Your task to perform on an android device: Open Google Maps and go to "Timeline" Image 0: 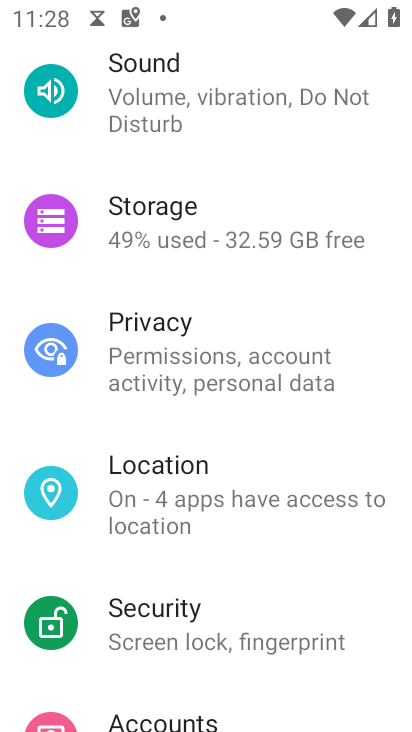
Step 0: press home button
Your task to perform on an android device: Open Google Maps and go to "Timeline" Image 1: 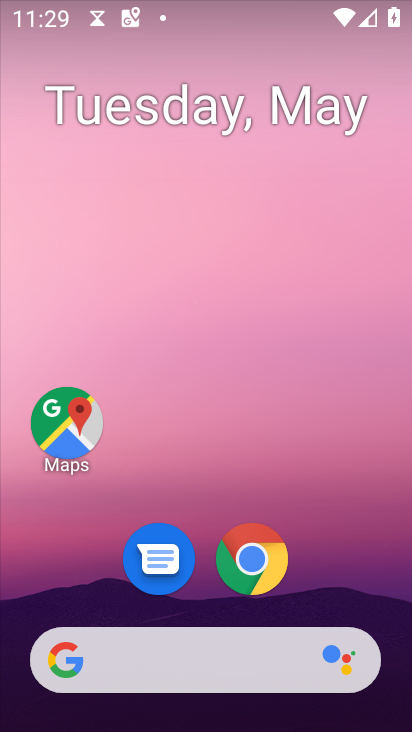
Step 1: drag from (356, 512) to (319, 86)
Your task to perform on an android device: Open Google Maps and go to "Timeline" Image 2: 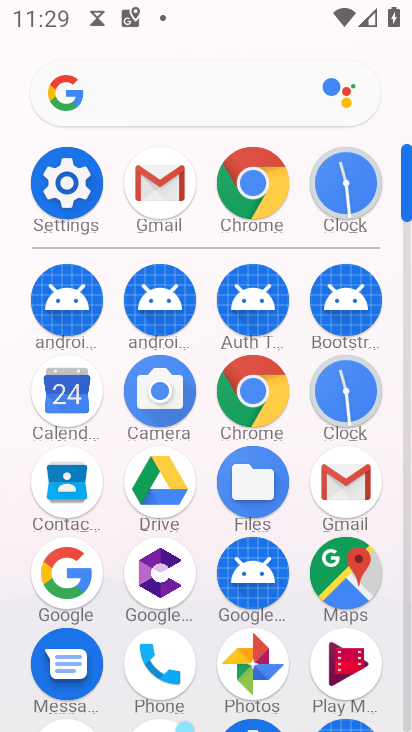
Step 2: click (352, 583)
Your task to perform on an android device: Open Google Maps and go to "Timeline" Image 3: 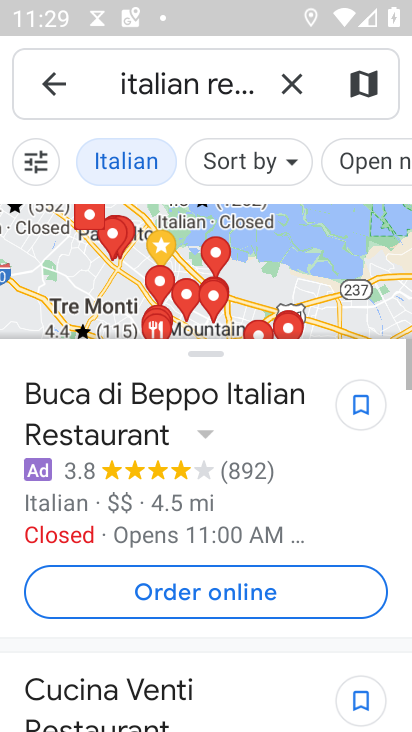
Step 3: click (39, 91)
Your task to perform on an android device: Open Google Maps and go to "Timeline" Image 4: 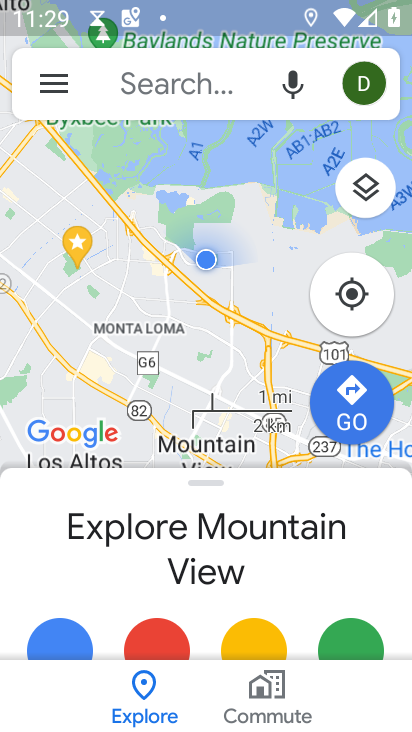
Step 4: click (41, 88)
Your task to perform on an android device: Open Google Maps and go to "Timeline" Image 5: 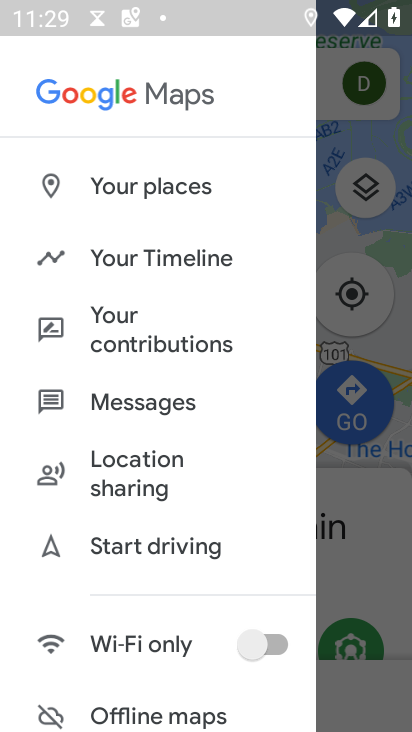
Step 5: click (155, 266)
Your task to perform on an android device: Open Google Maps and go to "Timeline" Image 6: 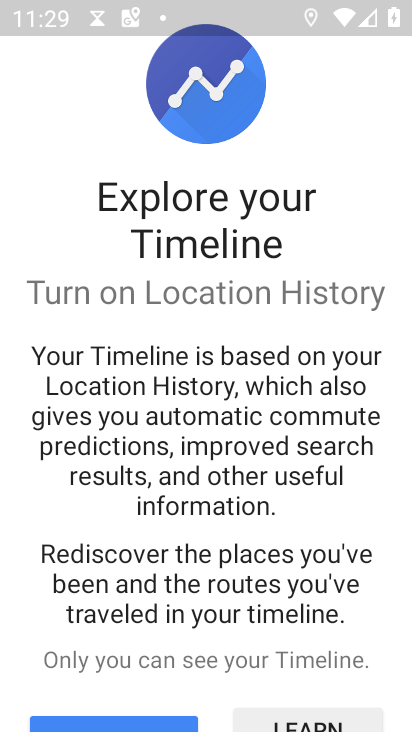
Step 6: task complete